Your task to perform on an android device: change the clock display to show seconds Image 0: 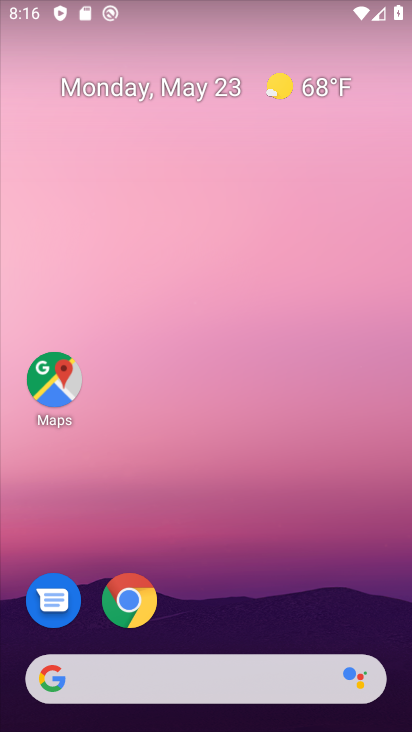
Step 0: drag from (25, 615) to (314, 133)
Your task to perform on an android device: change the clock display to show seconds Image 1: 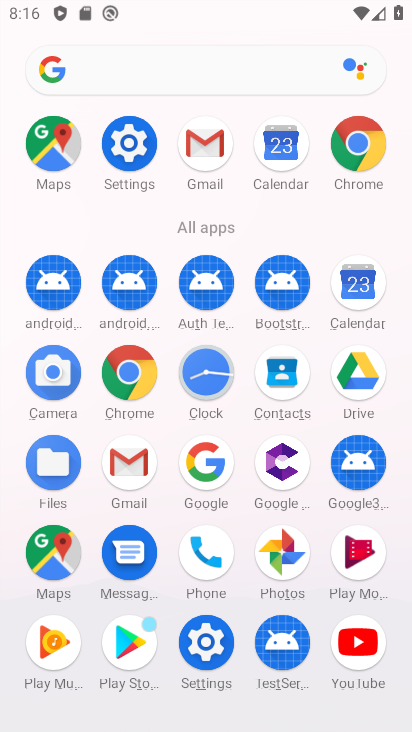
Step 1: click (185, 382)
Your task to perform on an android device: change the clock display to show seconds Image 2: 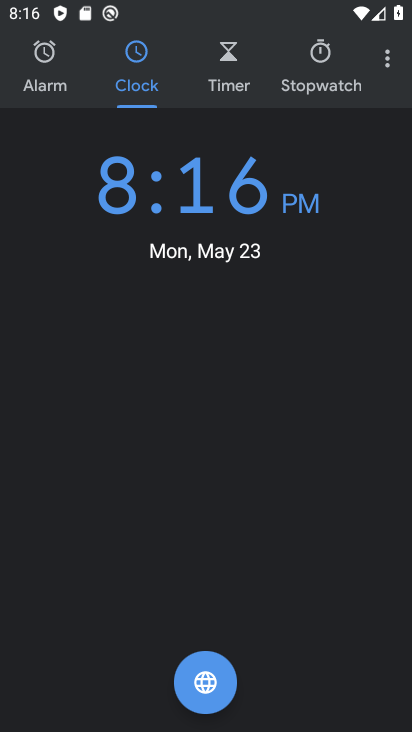
Step 2: click (378, 55)
Your task to perform on an android device: change the clock display to show seconds Image 3: 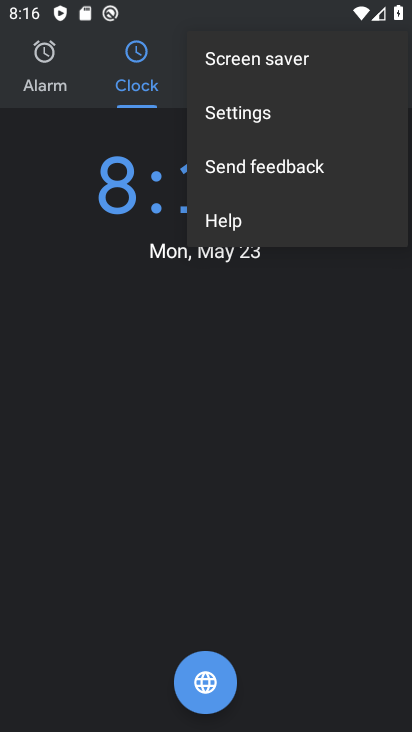
Step 3: click (224, 105)
Your task to perform on an android device: change the clock display to show seconds Image 4: 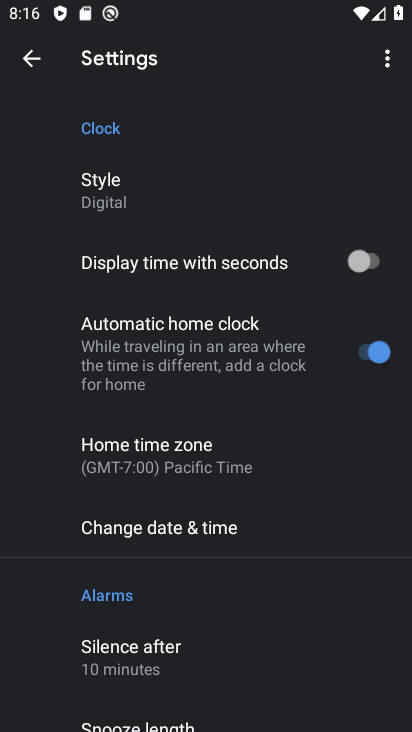
Step 4: click (352, 263)
Your task to perform on an android device: change the clock display to show seconds Image 5: 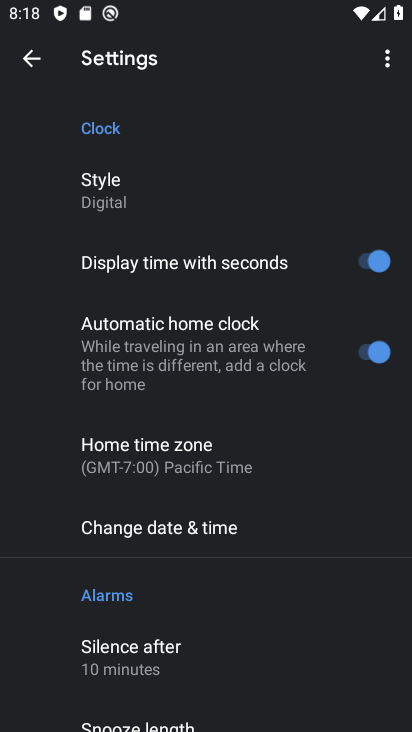
Step 5: task complete